Your task to perform on an android device: toggle notifications settings in the gmail app Image 0: 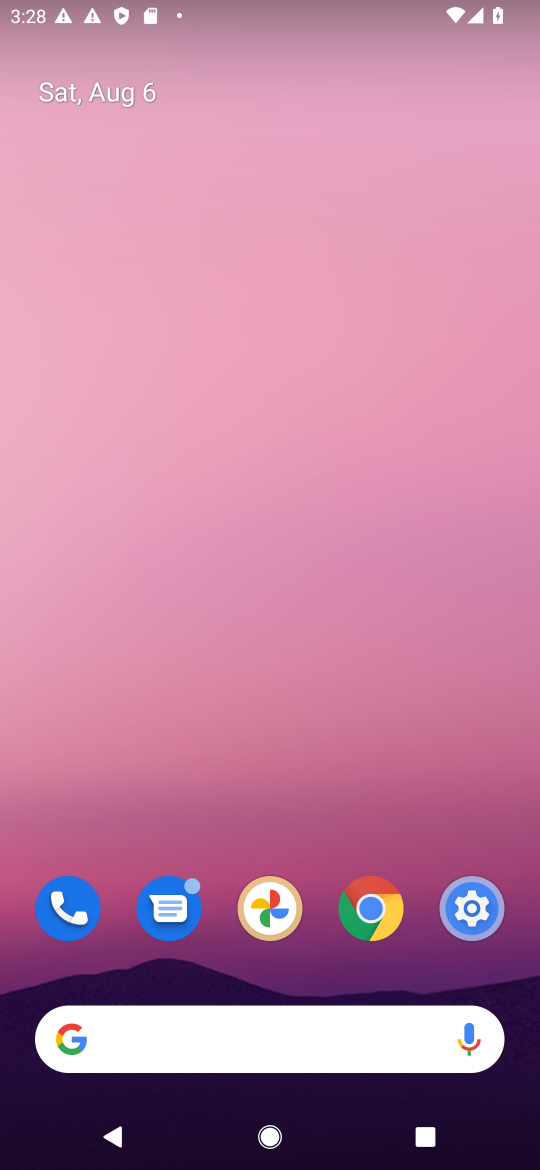
Step 0: drag from (279, 904) to (296, 221)
Your task to perform on an android device: toggle notifications settings in the gmail app Image 1: 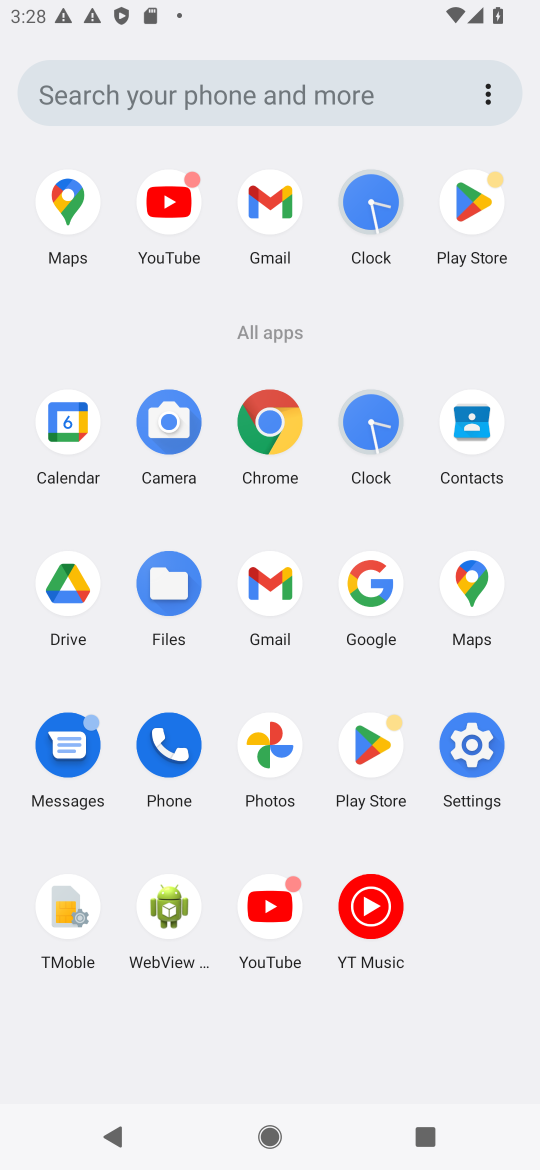
Step 1: click (270, 612)
Your task to perform on an android device: toggle notifications settings in the gmail app Image 2: 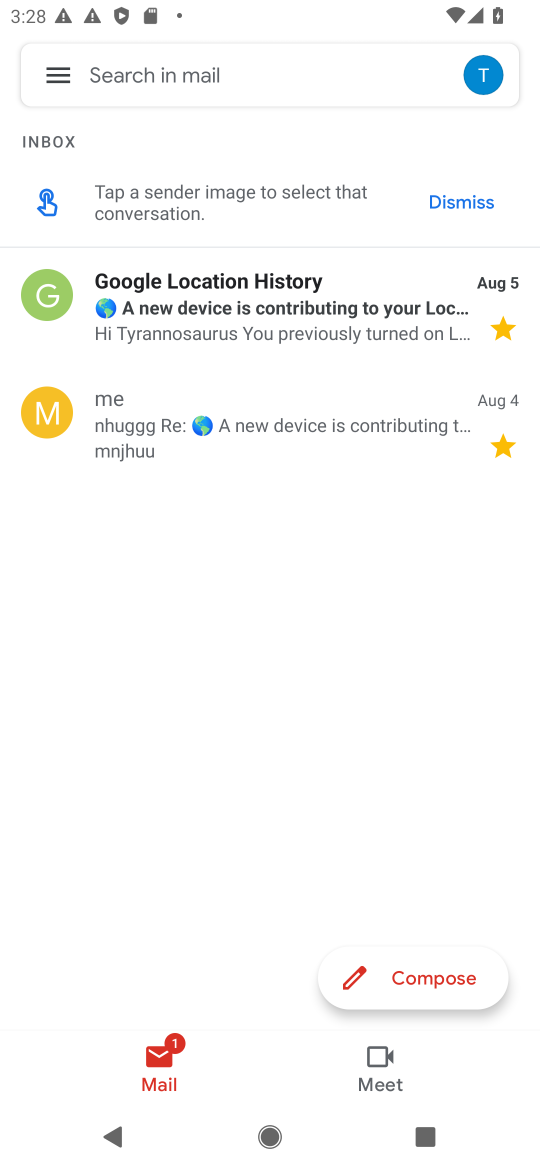
Step 2: click (45, 83)
Your task to perform on an android device: toggle notifications settings in the gmail app Image 3: 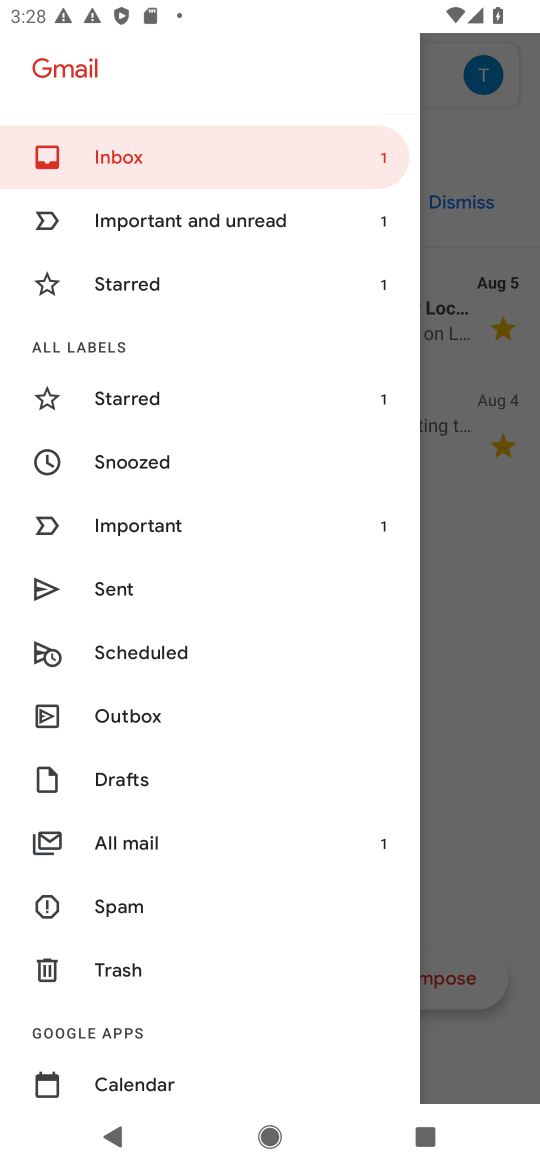
Step 3: drag from (157, 929) to (173, 568)
Your task to perform on an android device: toggle notifications settings in the gmail app Image 4: 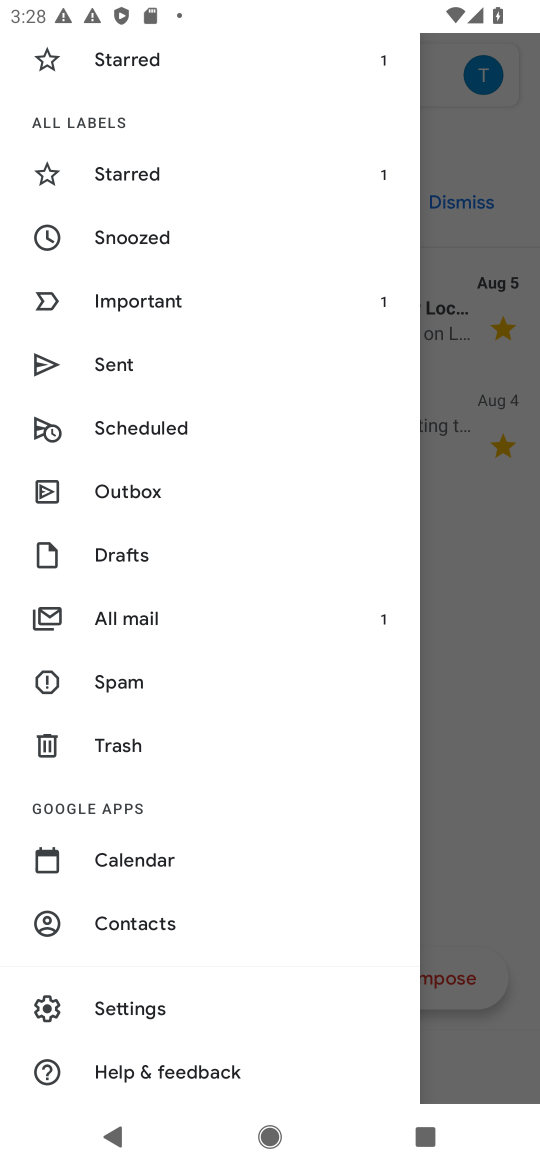
Step 4: click (142, 1007)
Your task to perform on an android device: toggle notifications settings in the gmail app Image 5: 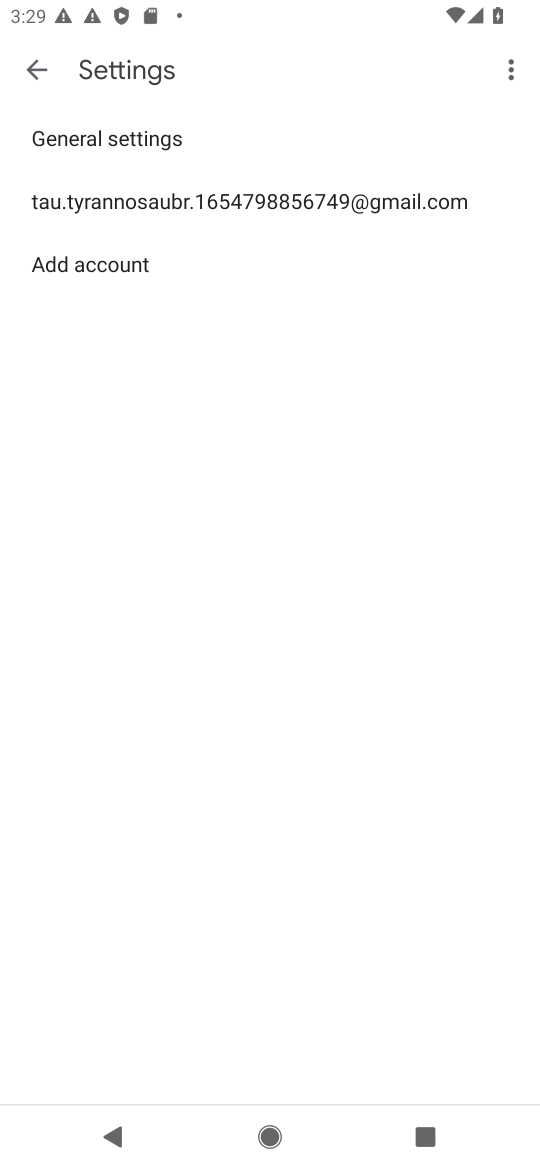
Step 5: click (159, 193)
Your task to perform on an android device: toggle notifications settings in the gmail app Image 6: 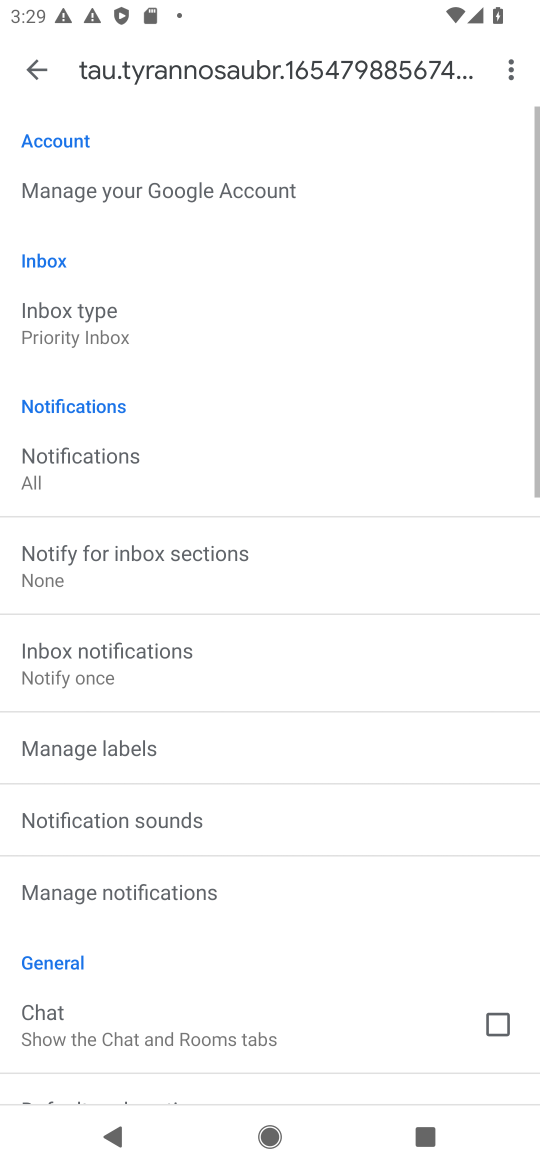
Step 6: click (31, 75)
Your task to perform on an android device: toggle notifications settings in the gmail app Image 7: 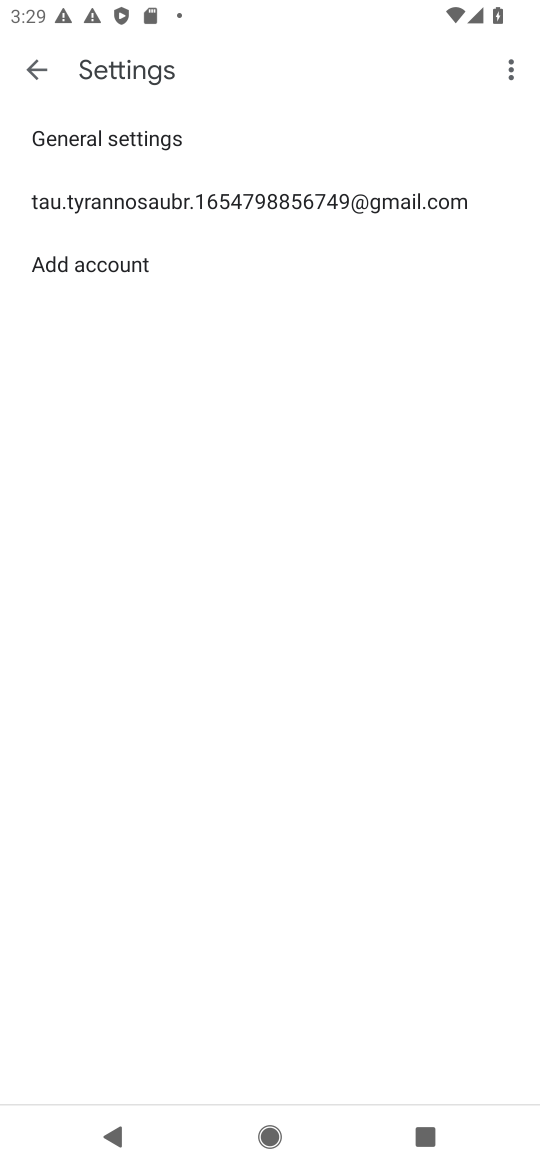
Step 7: click (148, 147)
Your task to perform on an android device: toggle notifications settings in the gmail app Image 8: 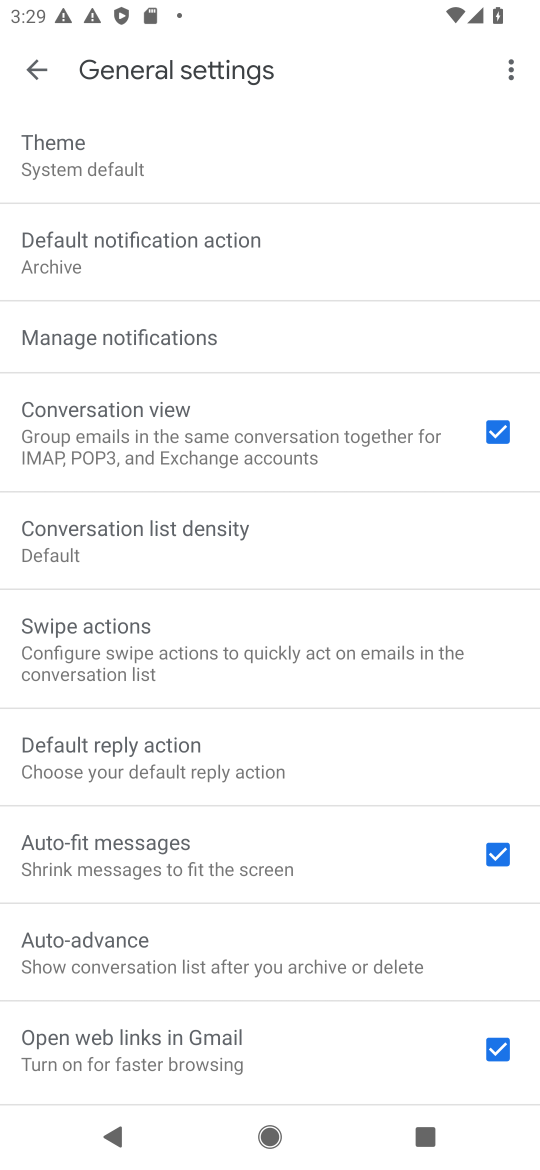
Step 8: click (149, 341)
Your task to perform on an android device: toggle notifications settings in the gmail app Image 9: 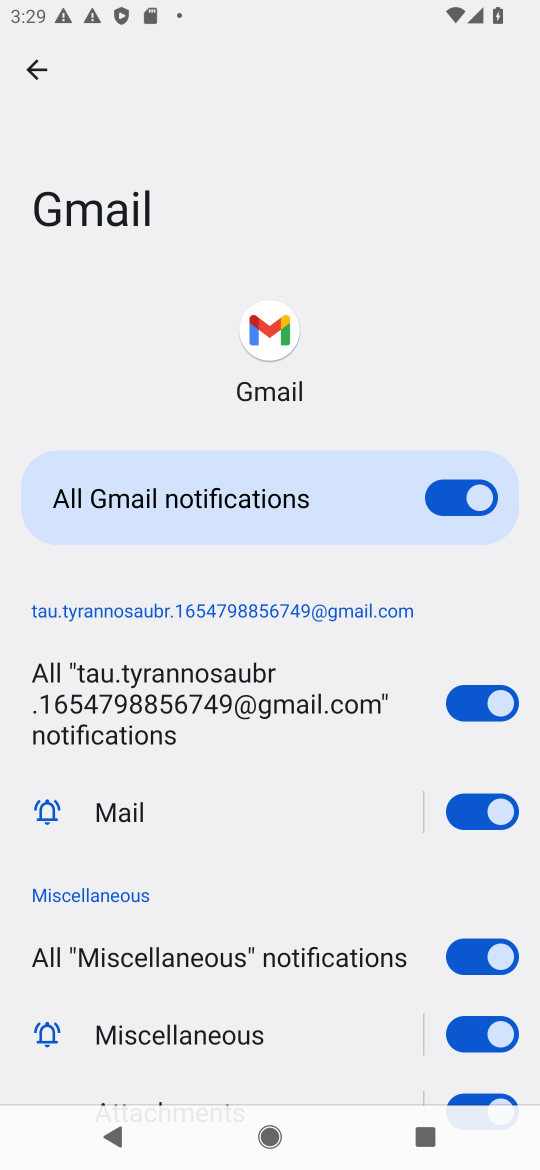
Step 9: click (413, 505)
Your task to perform on an android device: toggle notifications settings in the gmail app Image 10: 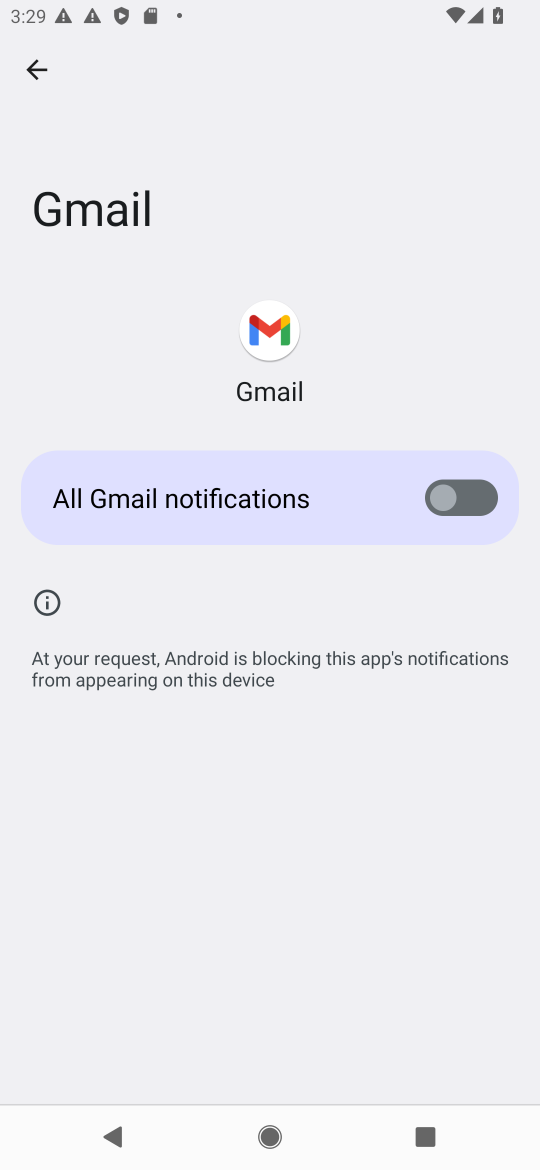
Step 10: task complete